Your task to perform on an android device: Open internet settings Image 0: 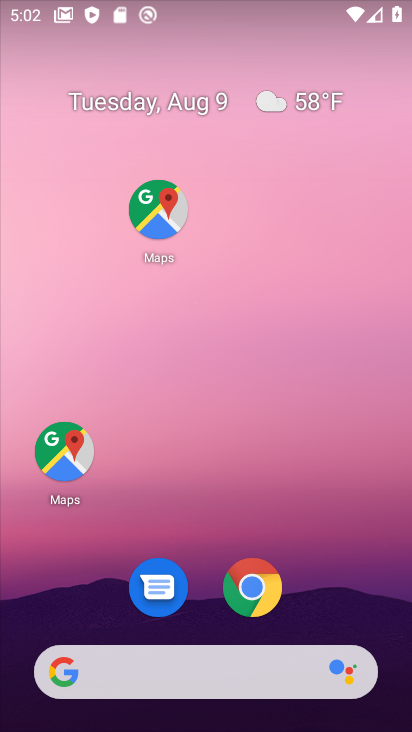
Step 0: drag from (342, 699) to (322, 356)
Your task to perform on an android device: Open internet settings Image 1: 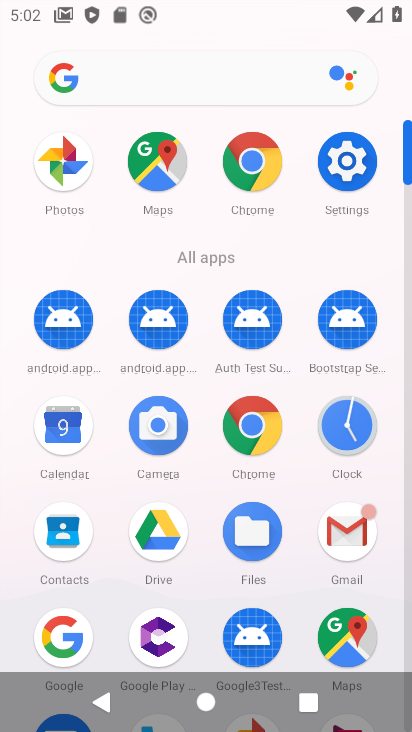
Step 1: click (225, 371)
Your task to perform on an android device: Open internet settings Image 2: 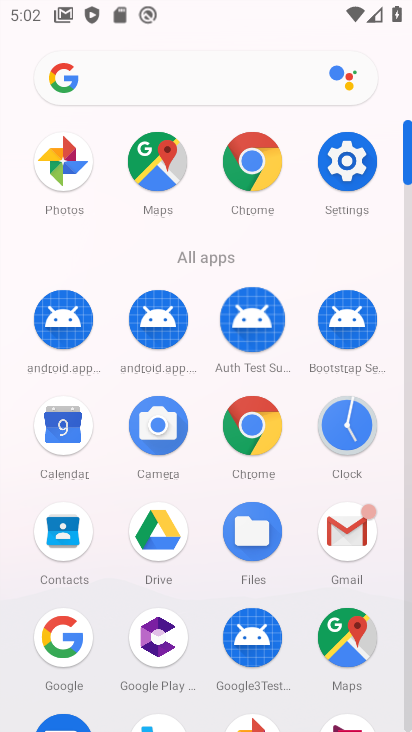
Step 2: click (337, 166)
Your task to perform on an android device: Open internet settings Image 3: 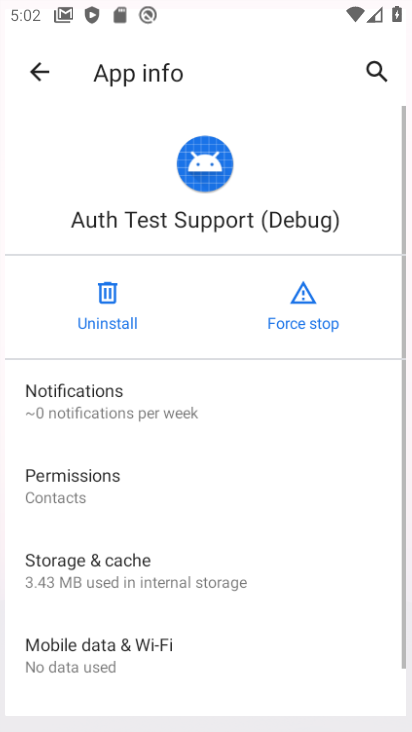
Step 3: click (337, 166)
Your task to perform on an android device: Open internet settings Image 4: 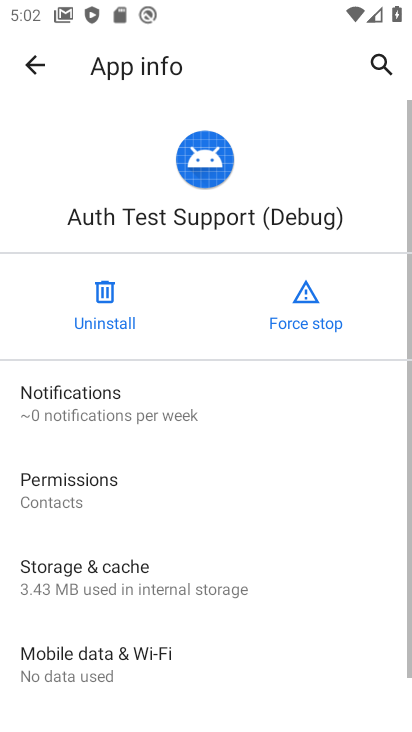
Step 4: click (346, 167)
Your task to perform on an android device: Open internet settings Image 5: 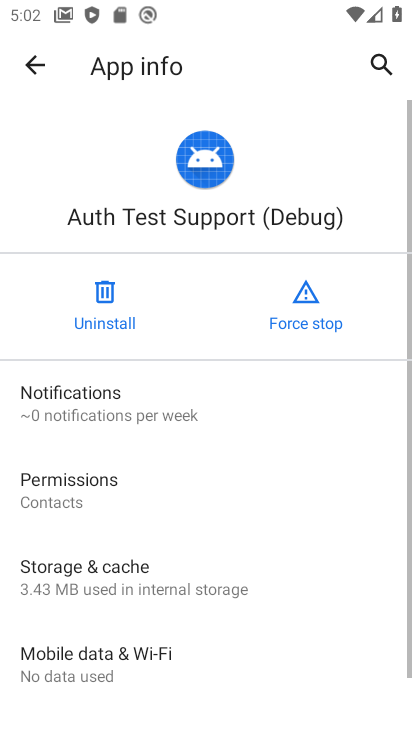
Step 5: click (36, 62)
Your task to perform on an android device: Open internet settings Image 6: 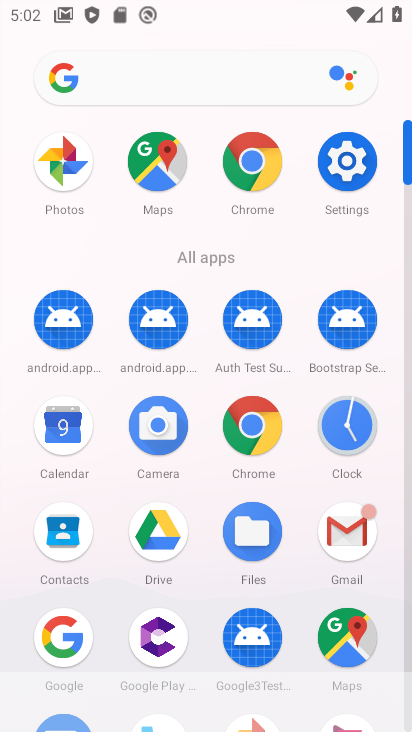
Step 6: click (353, 154)
Your task to perform on an android device: Open internet settings Image 7: 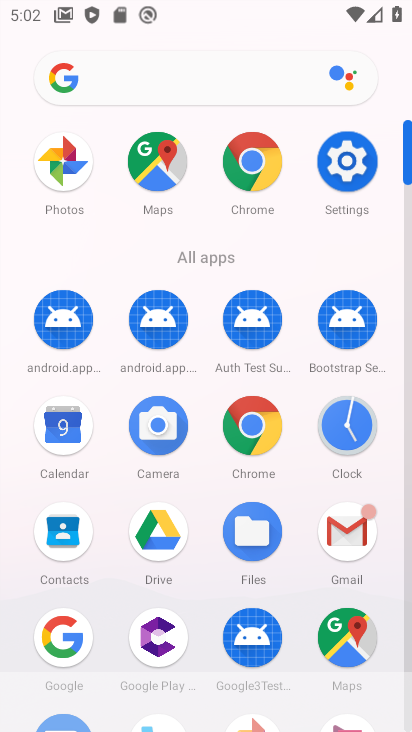
Step 7: click (352, 155)
Your task to perform on an android device: Open internet settings Image 8: 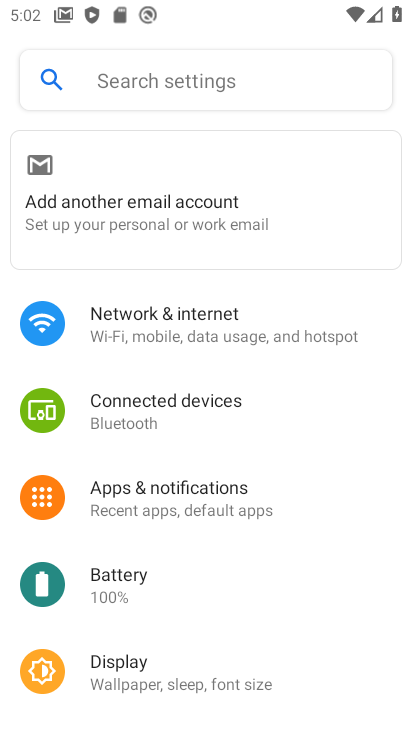
Step 8: click (193, 324)
Your task to perform on an android device: Open internet settings Image 9: 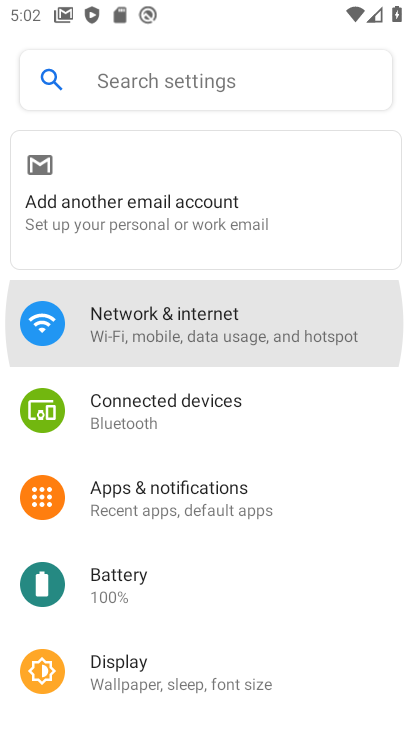
Step 9: click (193, 324)
Your task to perform on an android device: Open internet settings Image 10: 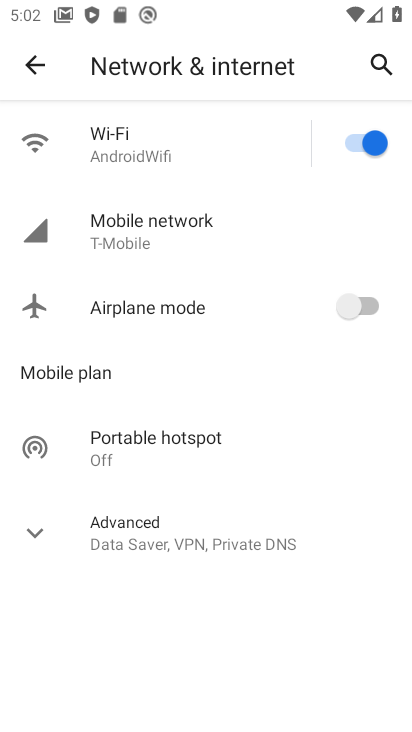
Step 10: click (217, 319)
Your task to perform on an android device: Open internet settings Image 11: 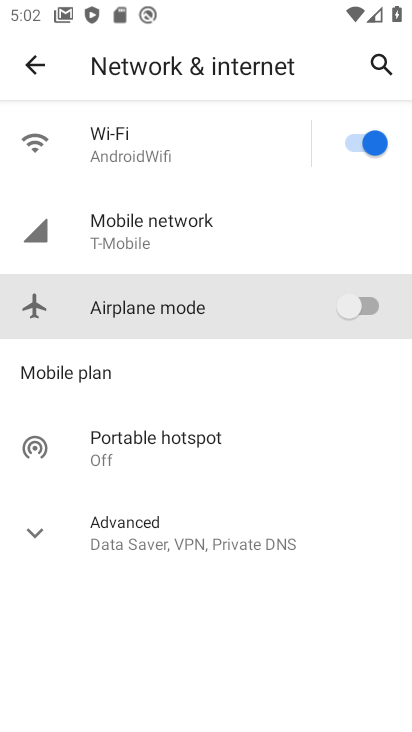
Step 11: click (217, 319)
Your task to perform on an android device: Open internet settings Image 12: 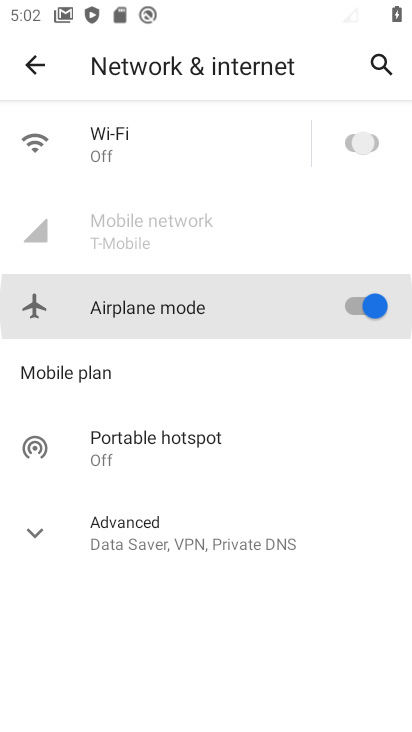
Step 12: click (277, 302)
Your task to perform on an android device: Open internet settings Image 13: 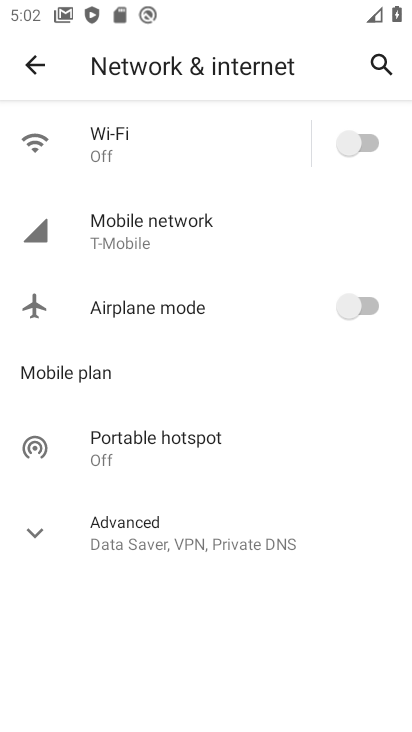
Step 13: click (277, 302)
Your task to perform on an android device: Open internet settings Image 14: 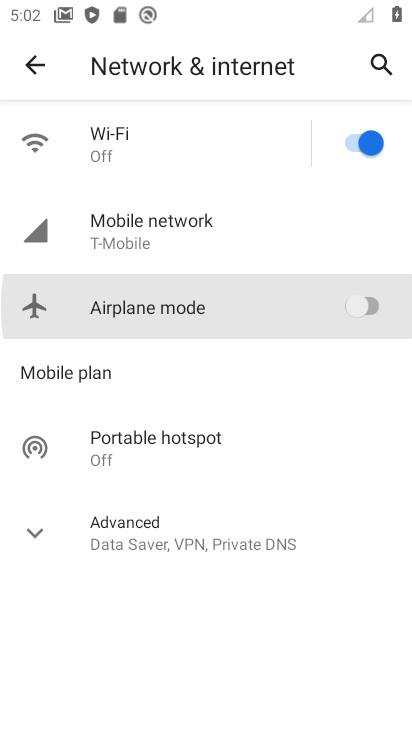
Step 14: click (194, 332)
Your task to perform on an android device: Open internet settings Image 15: 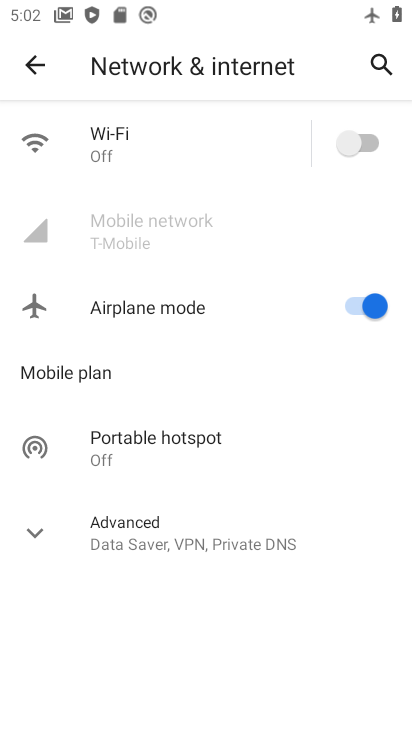
Step 15: click (359, 135)
Your task to perform on an android device: Open internet settings Image 16: 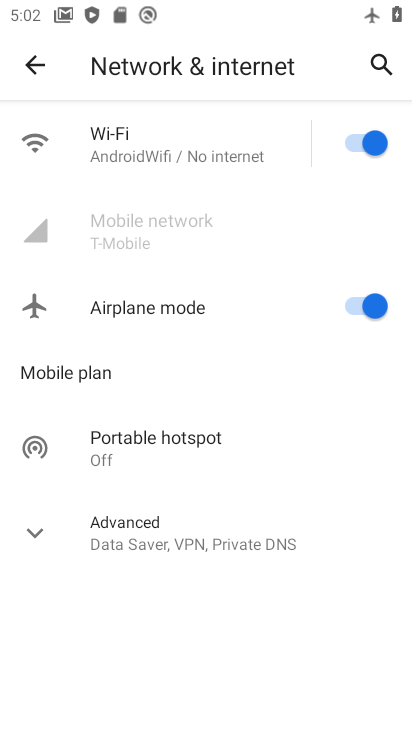
Step 16: click (373, 310)
Your task to perform on an android device: Open internet settings Image 17: 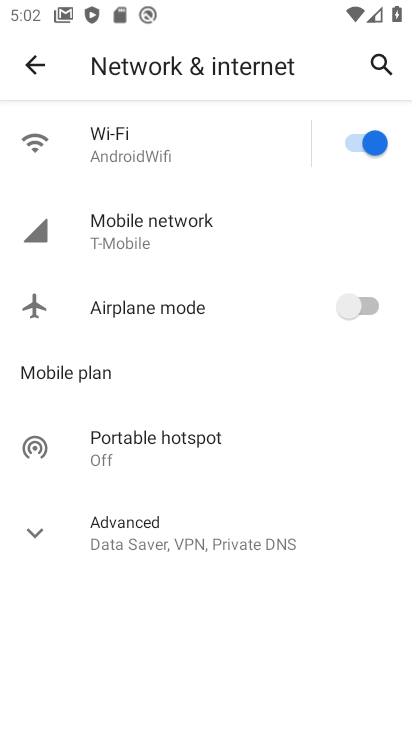
Step 17: task complete